Your task to perform on an android device: turn off location Image 0: 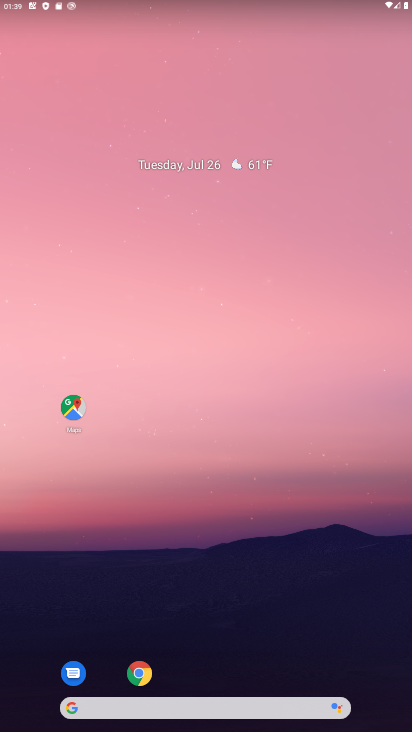
Step 0: drag from (206, 636) to (199, 336)
Your task to perform on an android device: turn off location Image 1: 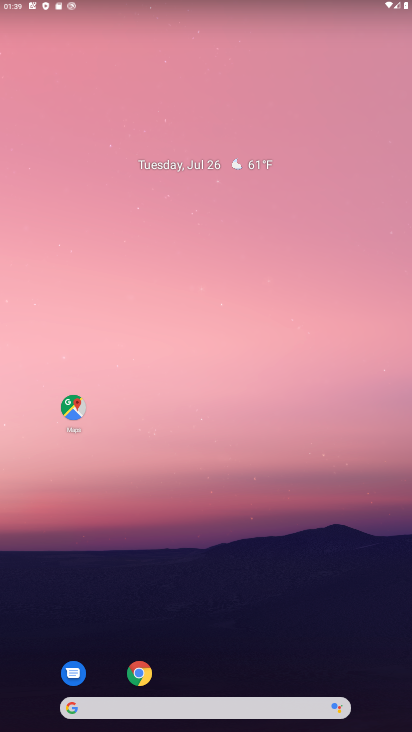
Step 1: drag from (190, 723) to (190, 211)
Your task to perform on an android device: turn off location Image 2: 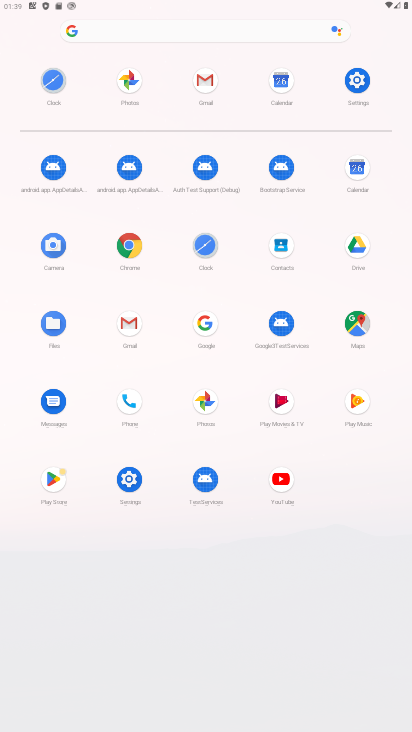
Step 2: click (360, 79)
Your task to perform on an android device: turn off location Image 3: 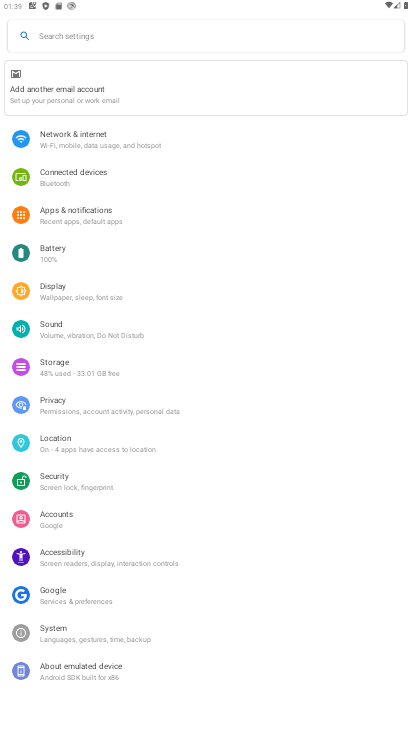
Step 3: click (55, 439)
Your task to perform on an android device: turn off location Image 4: 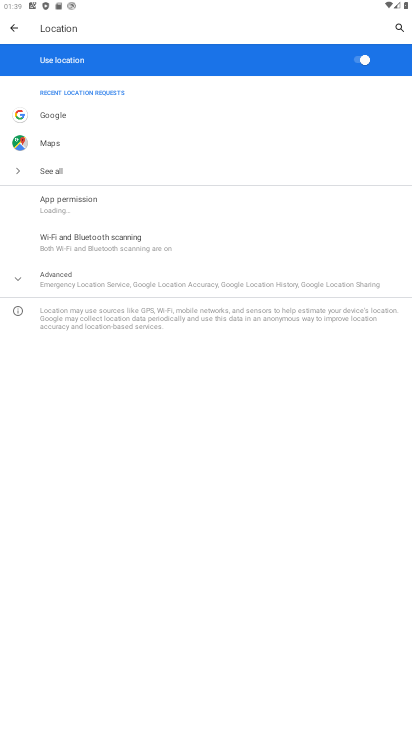
Step 4: click (358, 62)
Your task to perform on an android device: turn off location Image 5: 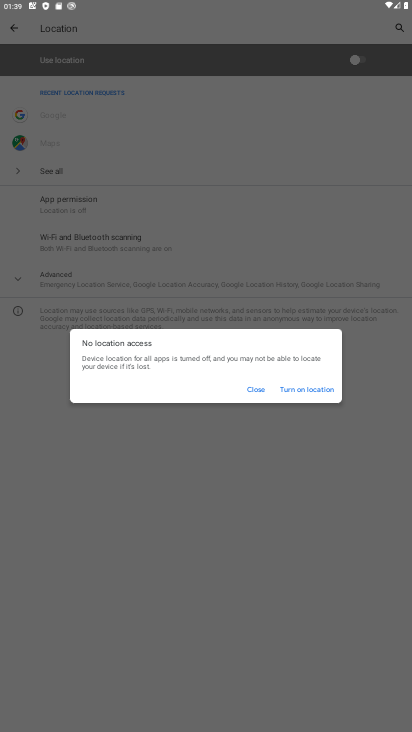
Step 5: click (254, 387)
Your task to perform on an android device: turn off location Image 6: 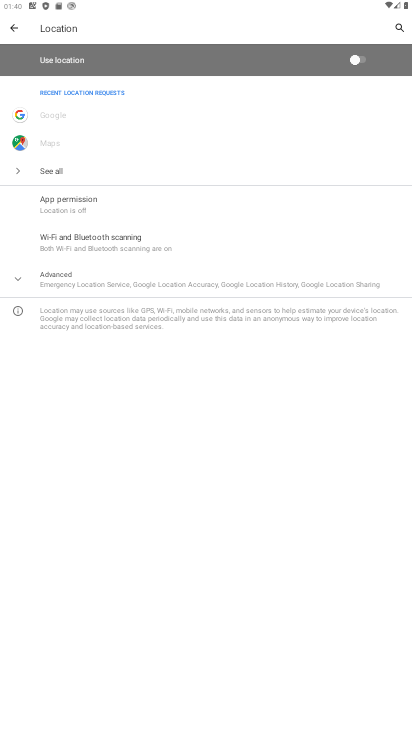
Step 6: task complete